Your task to perform on an android device: Go to Wikipedia Image 0: 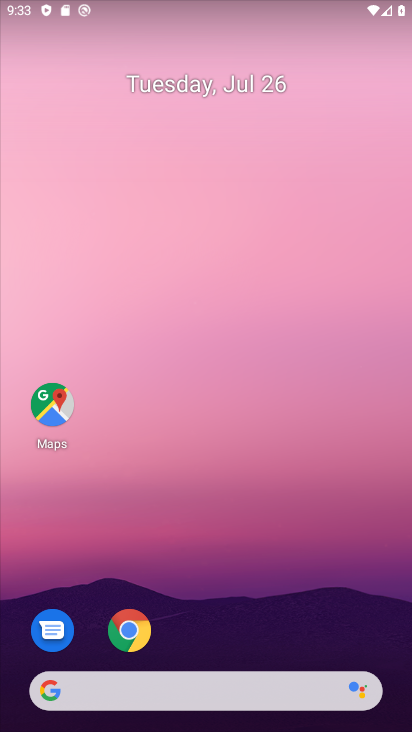
Step 0: click (127, 630)
Your task to perform on an android device: Go to Wikipedia Image 1: 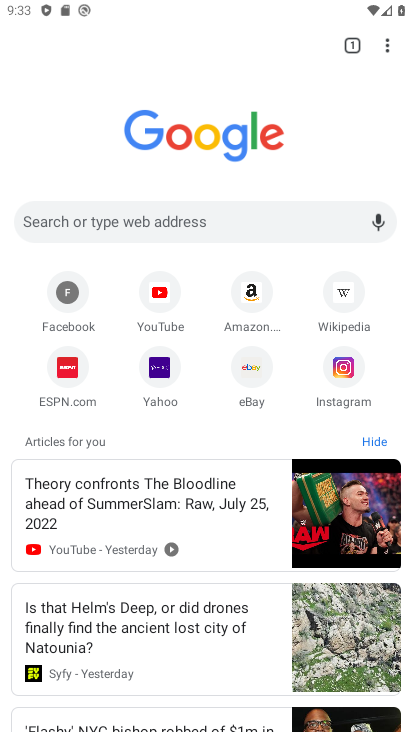
Step 1: click (112, 222)
Your task to perform on an android device: Go to Wikipedia Image 2: 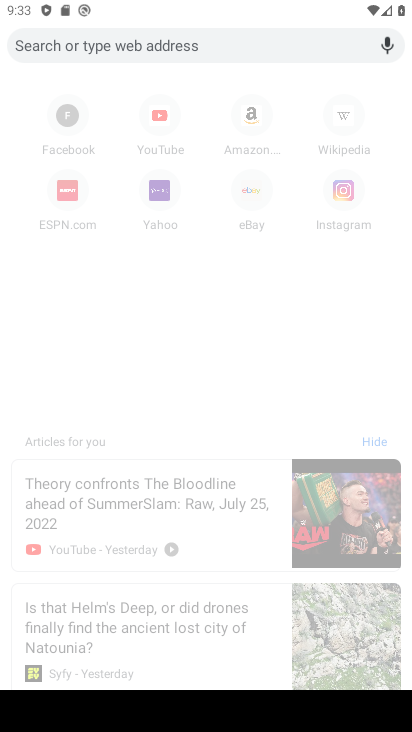
Step 2: type "wikipedia"
Your task to perform on an android device: Go to Wikipedia Image 3: 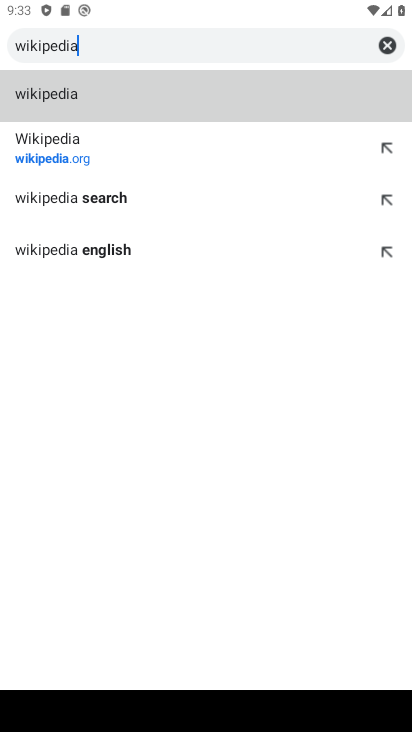
Step 3: click (48, 89)
Your task to perform on an android device: Go to Wikipedia Image 4: 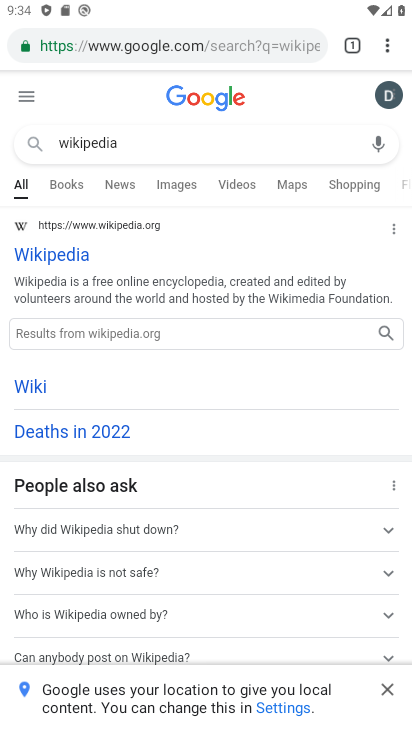
Step 4: click (45, 268)
Your task to perform on an android device: Go to Wikipedia Image 5: 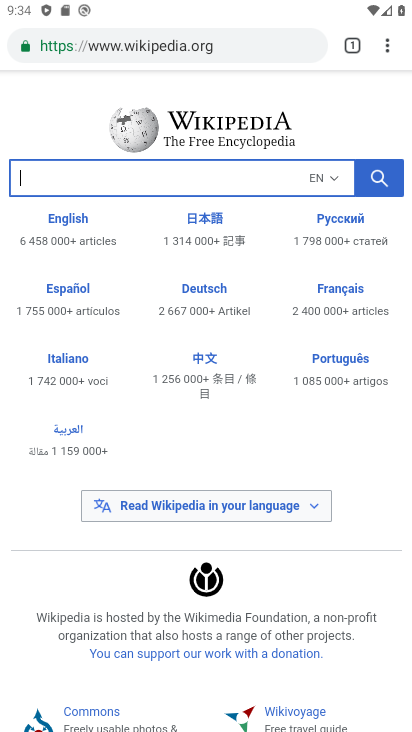
Step 5: task complete